Your task to perform on an android device: Show me popular videos on Youtube Image 0: 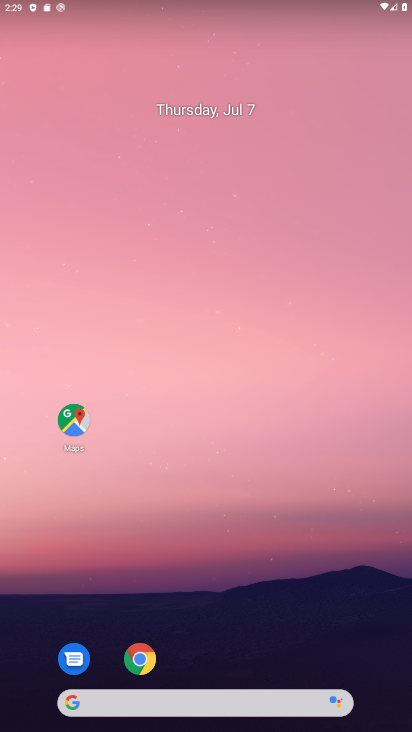
Step 0: drag from (31, 715) to (220, 183)
Your task to perform on an android device: Show me popular videos on Youtube Image 1: 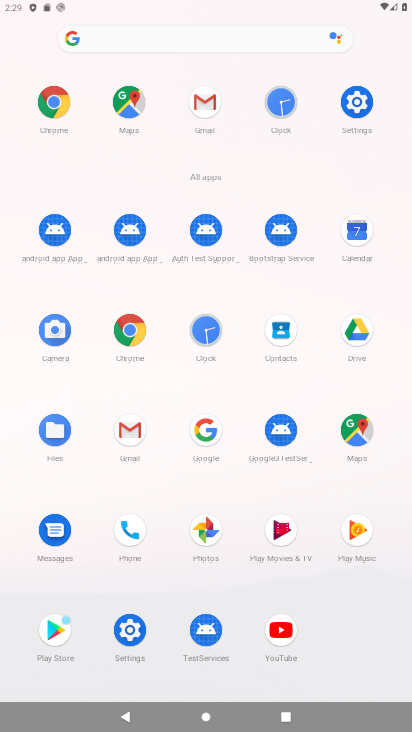
Step 1: click (282, 640)
Your task to perform on an android device: Show me popular videos on Youtube Image 2: 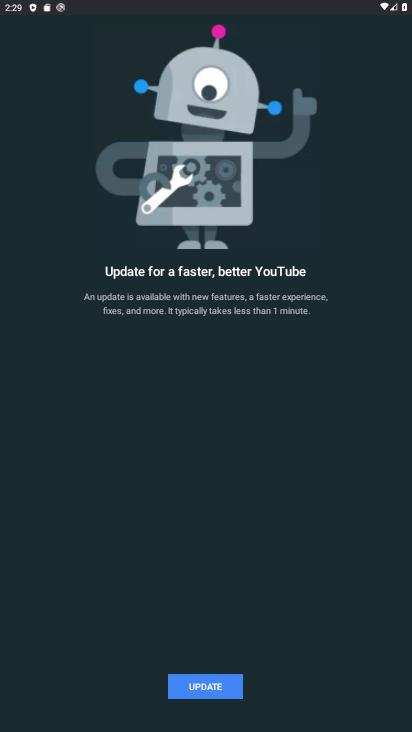
Step 2: click (201, 692)
Your task to perform on an android device: Show me popular videos on Youtube Image 3: 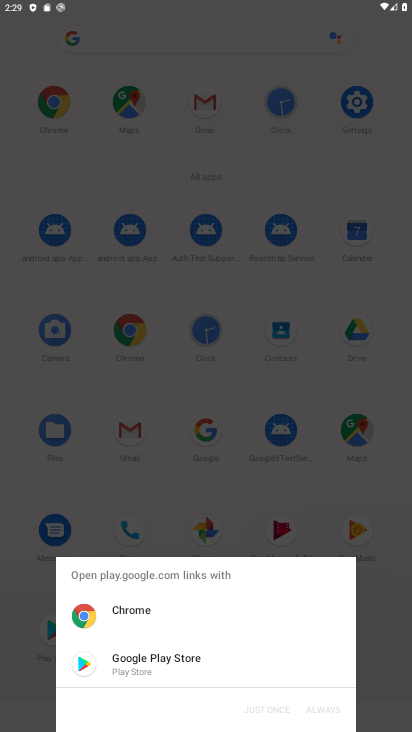
Step 3: click (149, 657)
Your task to perform on an android device: Show me popular videos on Youtube Image 4: 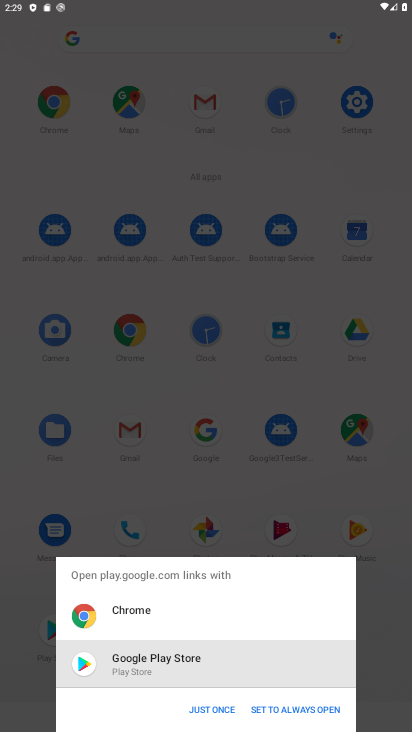
Step 4: click (201, 706)
Your task to perform on an android device: Show me popular videos on Youtube Image 5: 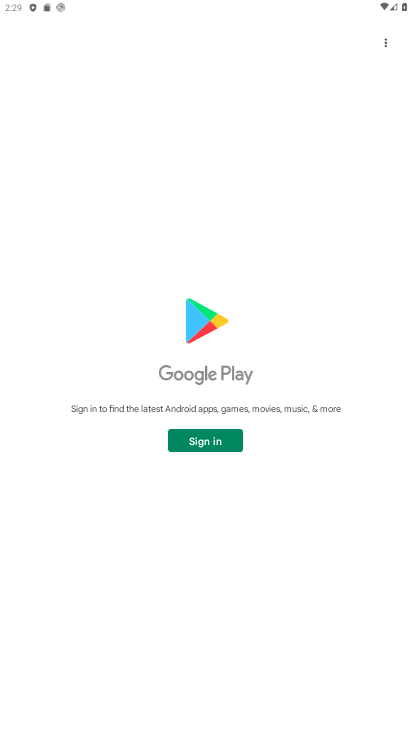
Step 5: click (192, 447)
Your task to perform on an android device: Show me popular videos on Youtube Image 6: 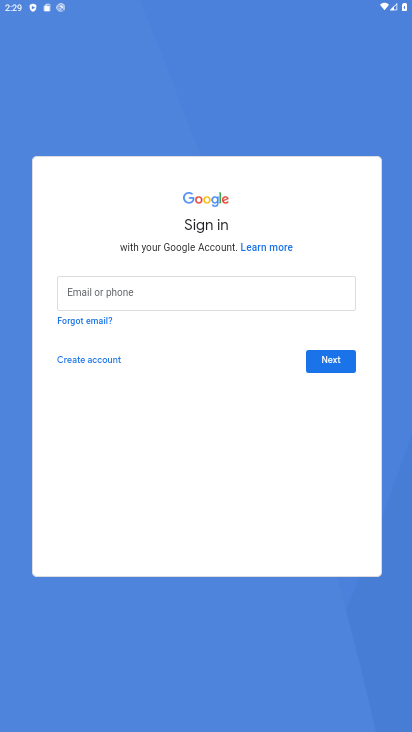
Step 6: task complete